Your task to perform on an android device: Go to Reddit.com Image 0: 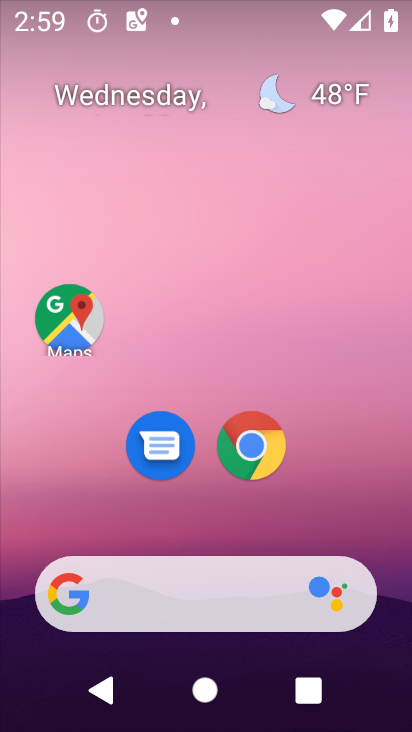
Step 0: click (251, 450)
Your task to perform on an android device: Go to Reddit.com Image 1: 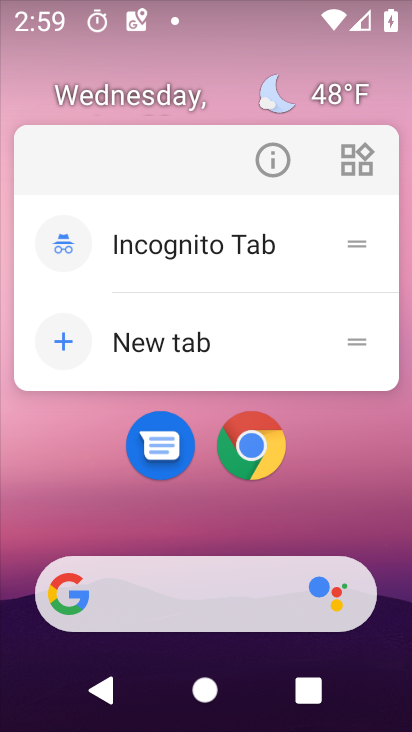
Step 1: click (234, 430)
Your task to perform on an android device: Go to Reddit.com Image 2: 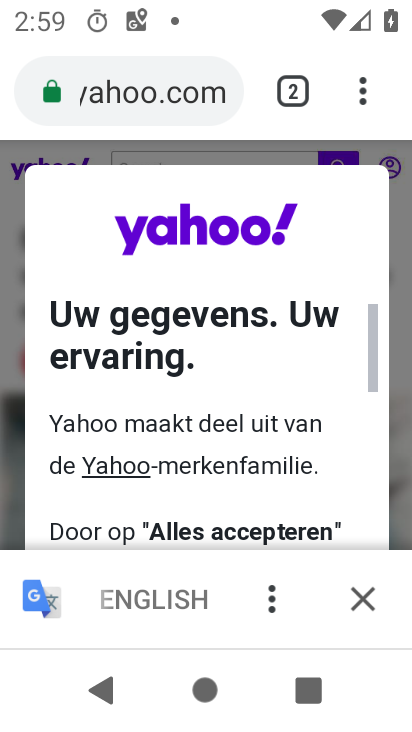
Step 2: click (175, 95)
Your task to perform on an android device: Go to Reddit.com Image 3: 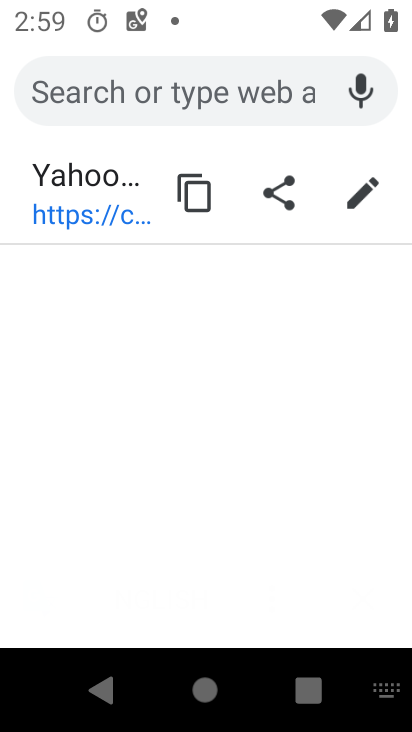
Step 3: click (136, 95)
Your task to perform on an android device: Go to Reddit.com Image 4: 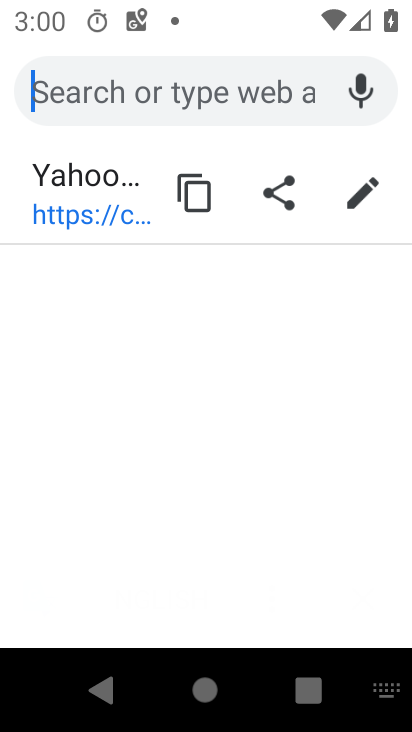
Step 4: type "reddit.com"
Your task to perform on an android device: Go to Reddit.com Image 5: 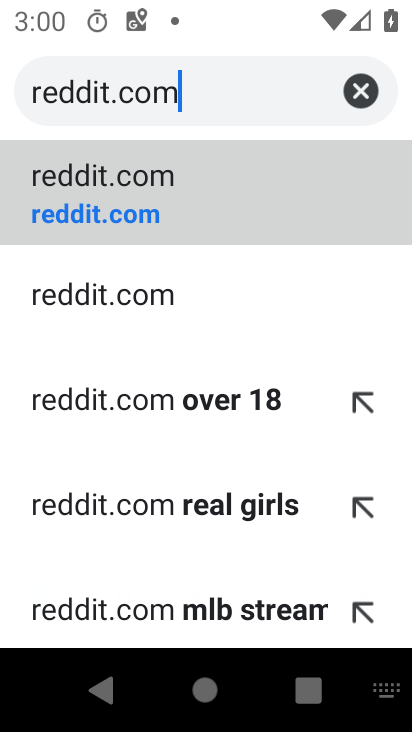
Step 5: click (78, 213)
Your task to perform on an android device: Go to Reddit.com Image 6: 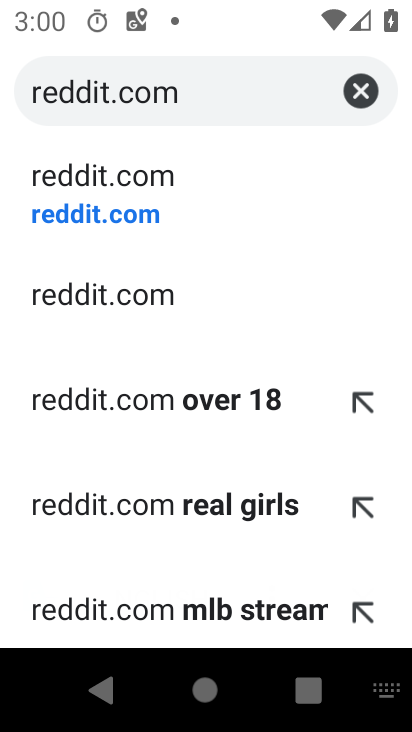
Step 6: click (82, 190)
Your task to perform on an android device: Go to Reddit.com Image 7: 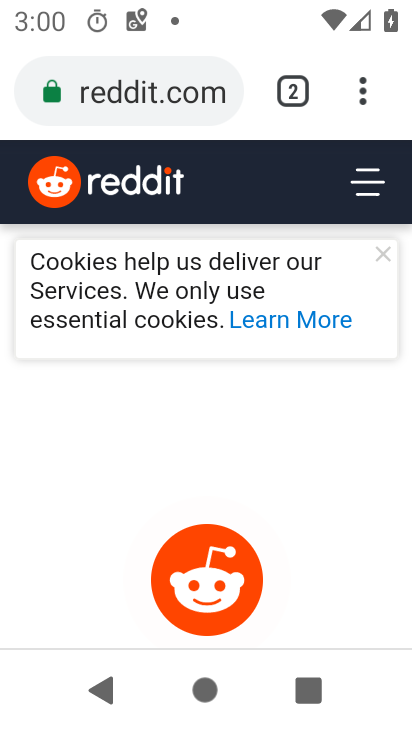
Step 7: task complete